Your task to perform on an android device: empty trash in the gmail app Image 0: 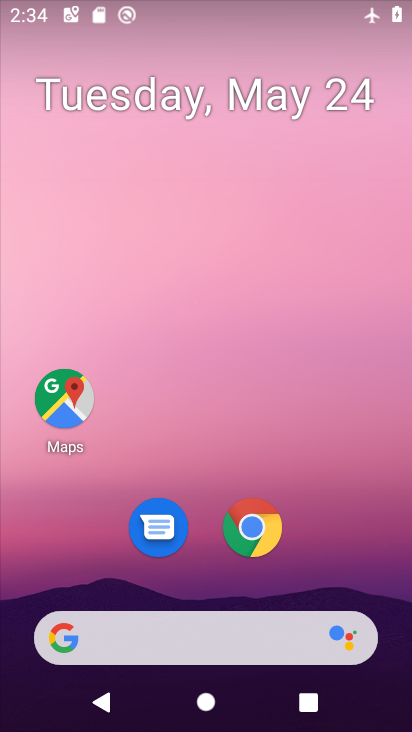
Step 0: drag from (366, 624) to (353, 0)
Your task to perform on an android device: empty trash in the gmail app Image 1: 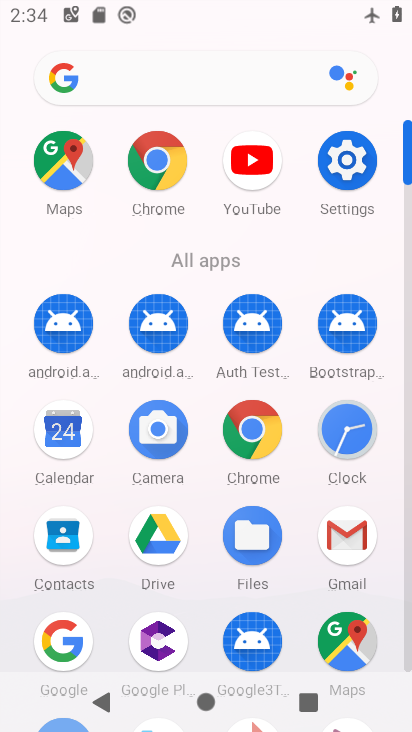
Step 1: click (338, 535)
Your task to perform on an android device: empty trash in the gmail app Image 2: 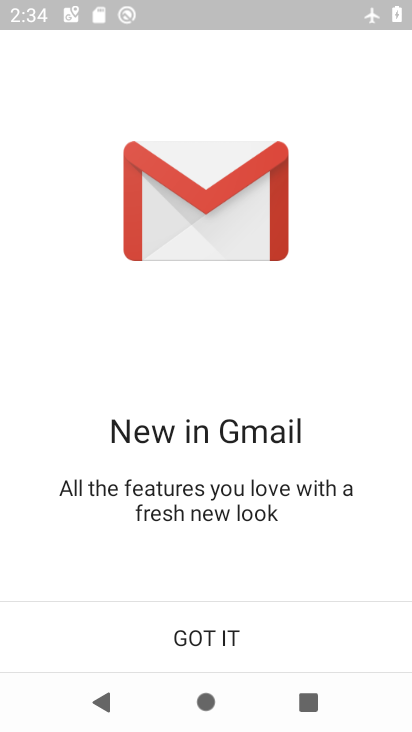
Step 2: click (192, 639)
Your task to perform on an android device: empty trash in the gmail app Image 3: 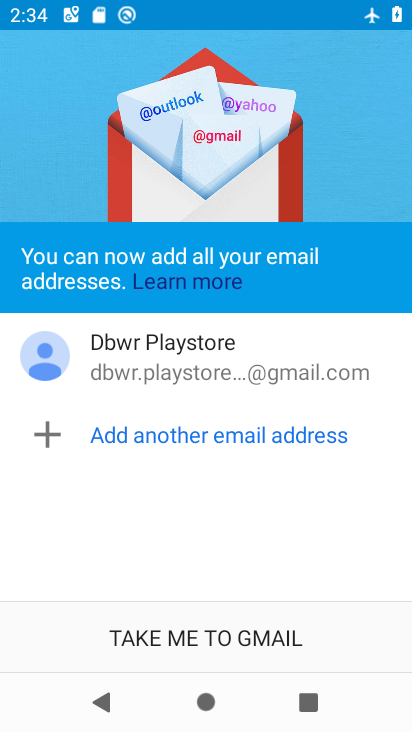
Step 3: click (192, 639)
Your task to perform on an android device: empty trash in the gmail app Image 4: 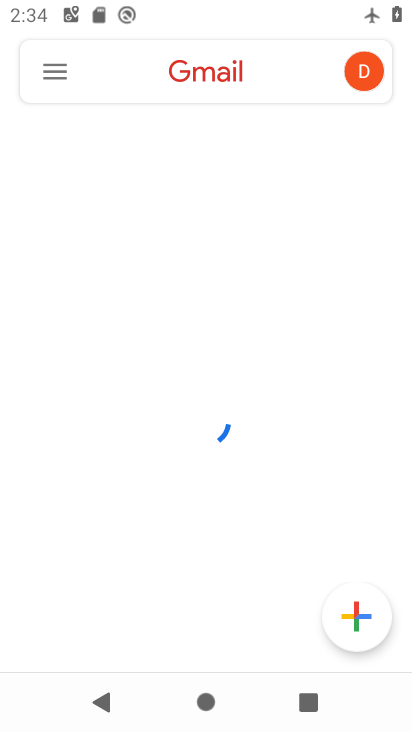
Step 4: click (51, 73)
Your task to perform on an android device: empty trash in the gmail app Image 5: 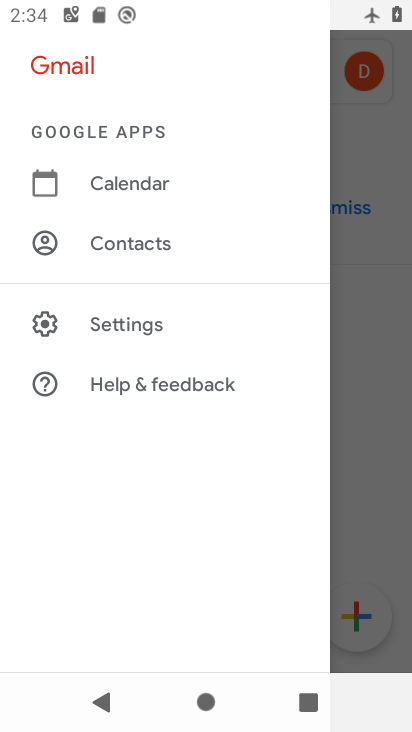
Step 5: click (383, 289)
Your task to perform on an android device: empty trash in the gmail app Image 6: 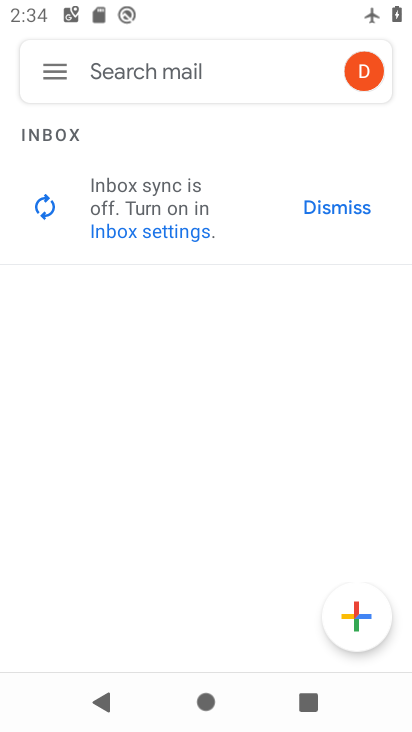
Step 6: click (54, 76)
Your task to perform on an android device: empty trash in the gmail app Image 7: 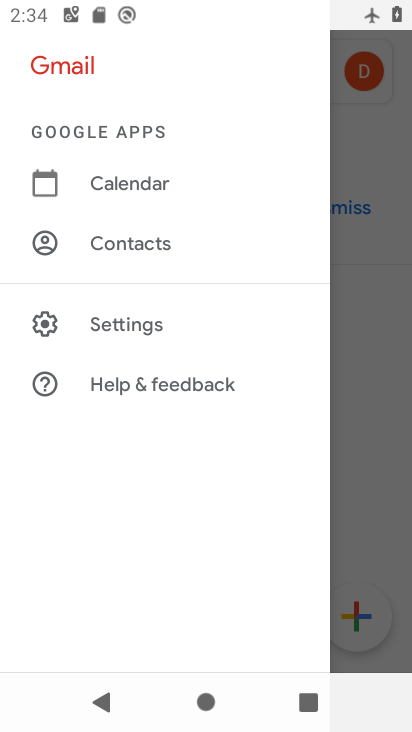
Step 7: drag from (212, 245) to (224, 509)
Your task to perform on an android device: empty trash in the gmail app Image 8: 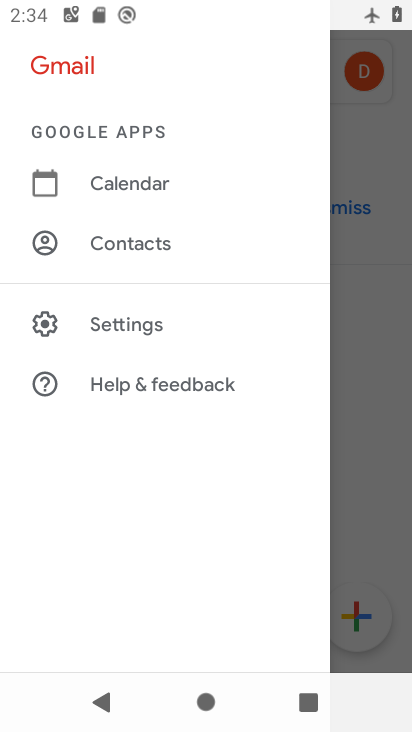
Step 8: click (375, 275)
Your task to perform on an android device: empty trash in the gmail app Image 9: 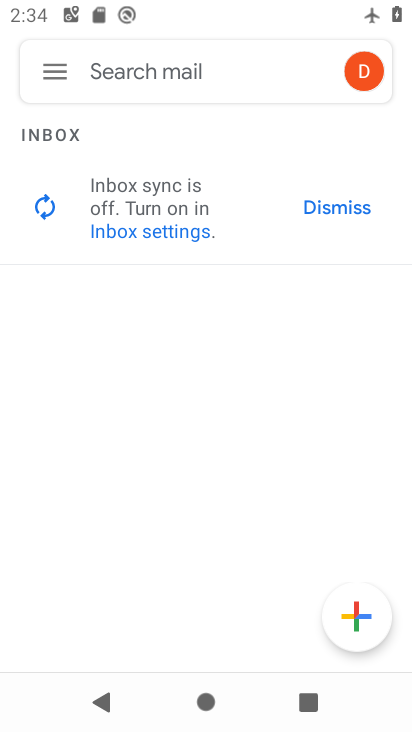
Step 9: drag from (310, 256) to (332, 396)
Your task to perform on an android device: empty trash in the gmail app Image 10: 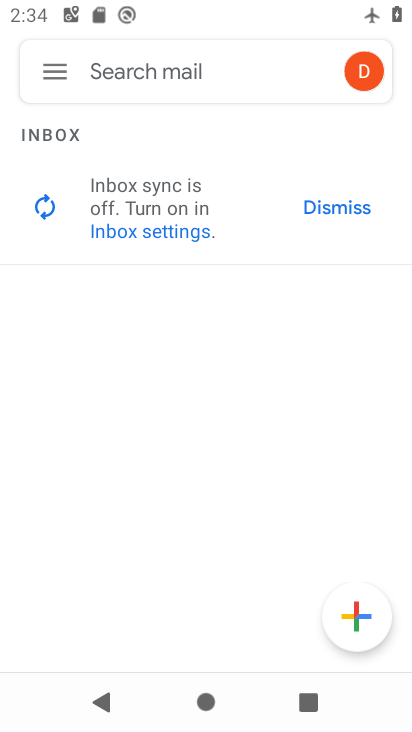
Step 10: click (51, 70)
Your task to perform on an android device: empty trash in the gmail app Image 11: 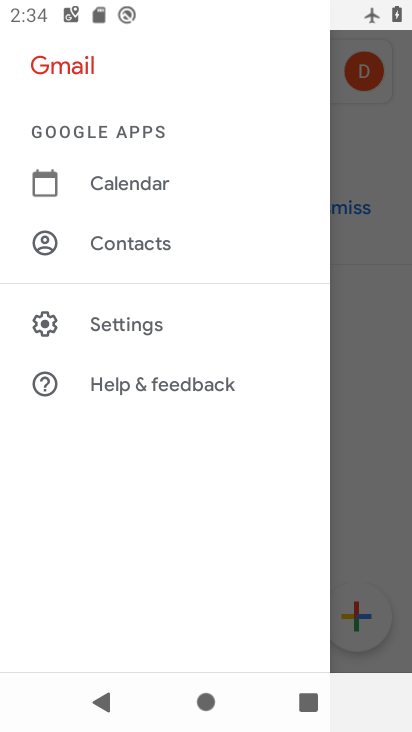
Step 11: task complete